Your task to perform on an android device: turn off picture-in-picture Image 0: 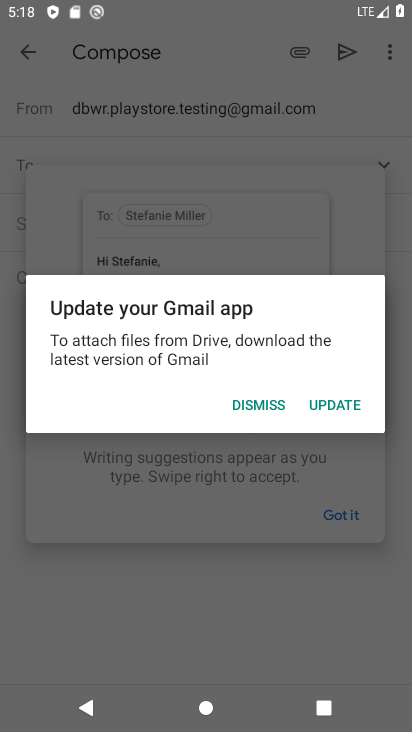
Step 0: press home button
Your task to perform on an android device: turn off picture-in-picture Image 1: 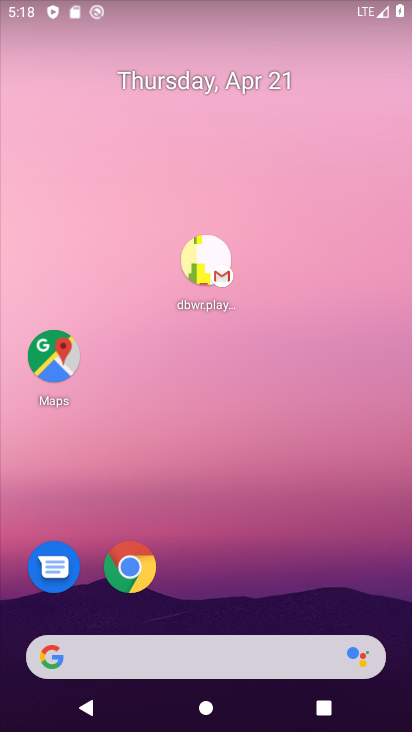
Step 1: click (143, 563)
Your task to perform on an android device: turn off picture-in-picture Image 2: 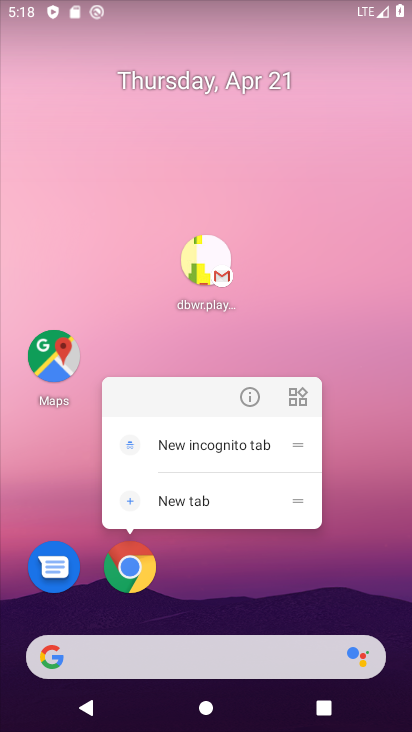
Step 2: click (247, 392)
Your task to perform on an android device: turn off picture-in-picture Image 3: 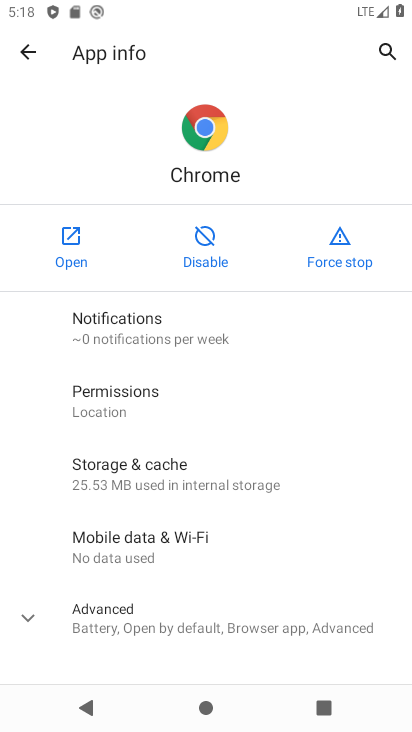
Step 3: drag from (145, 513) to (202, 291)
Your task to perform on an android device: turn off picture-in-picture Image 4: 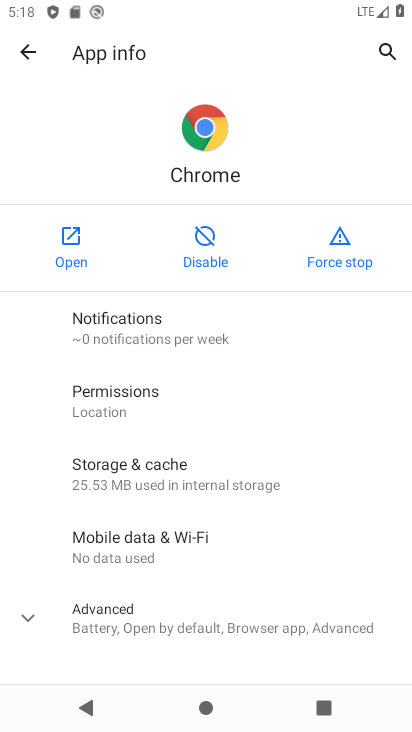
Step 4: click (126, 617)
Your task to perform on an android device: turn off picture-in-picture Image 5: 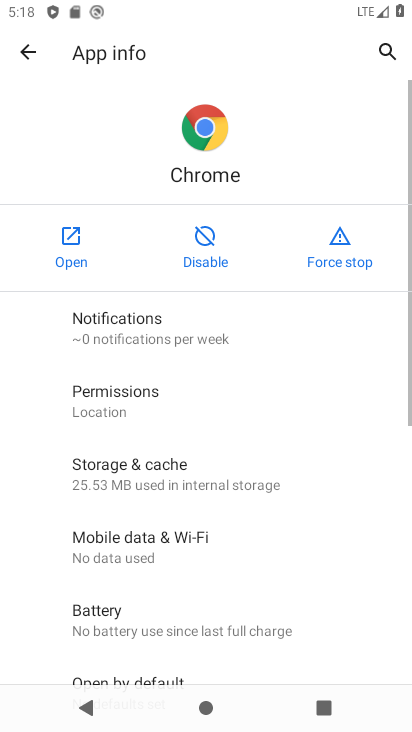
Step 5: drag from (159, 597) to (206, 289)
Your task to perform on an android device: turn off picture-in-picture Image 6: 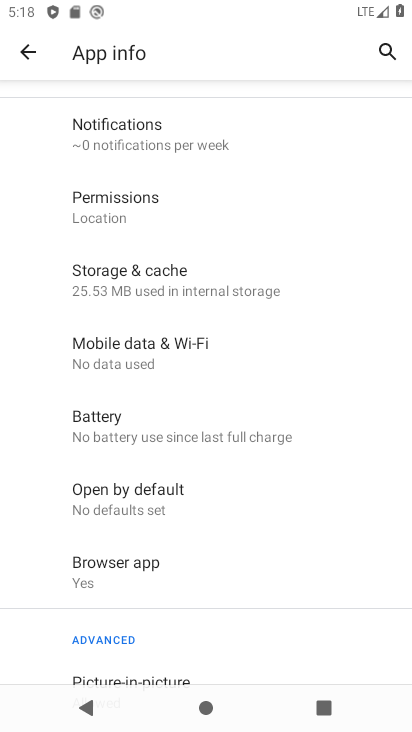
Step 6: drag from (105, 512) to (147, 218)
Your task to perform on an android device: turn off picture-in-picture Image 7: 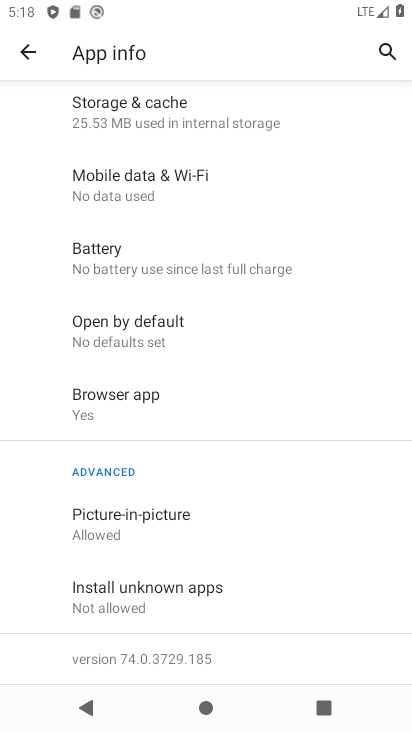
Step 7: click (105, 534)
Your task to perform on an android device: turn off picture-in-picture Image 8: 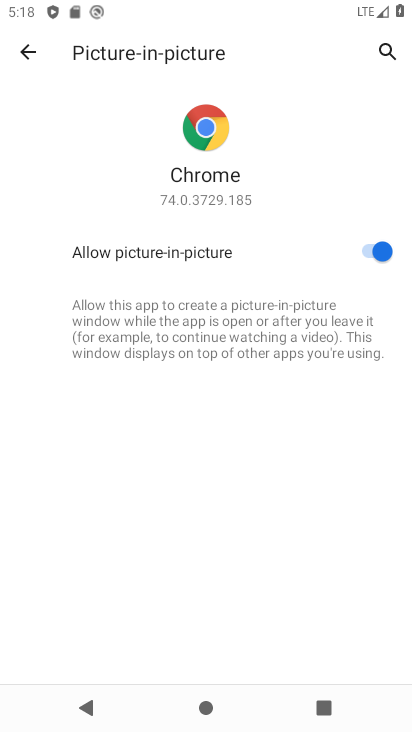
Step 8: click (367, 250)
Your task to perform on an android device: turn off picture-in-picture Image 9: 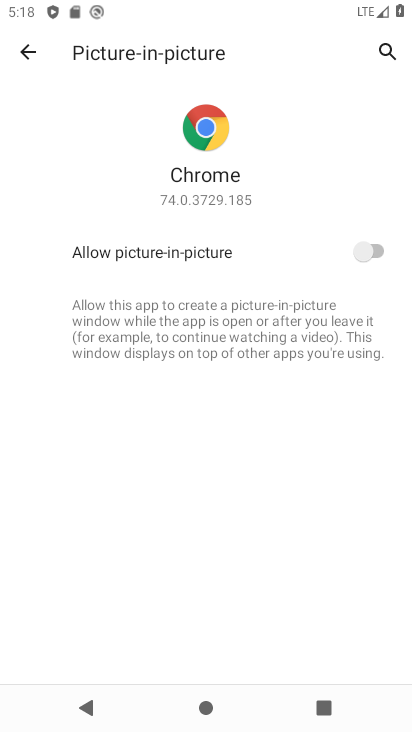
Step 9: task complete